Your task to perform on an android device: empty trash in google photos Image 0: 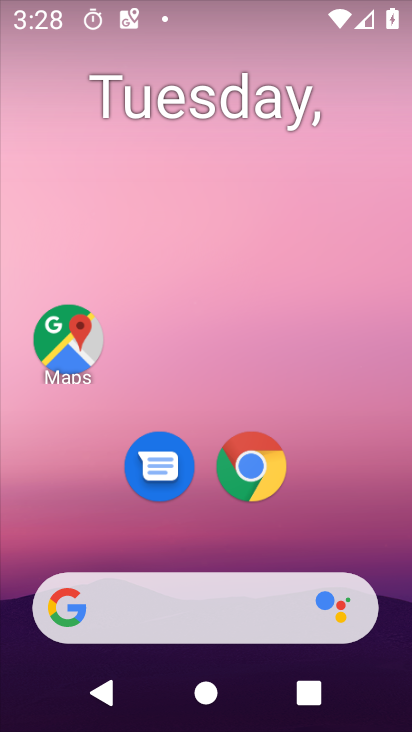
Step 0: drag from (381, 540) to (382, 220)
Your task to perform on an android device: empty trash in google photos Image 1: 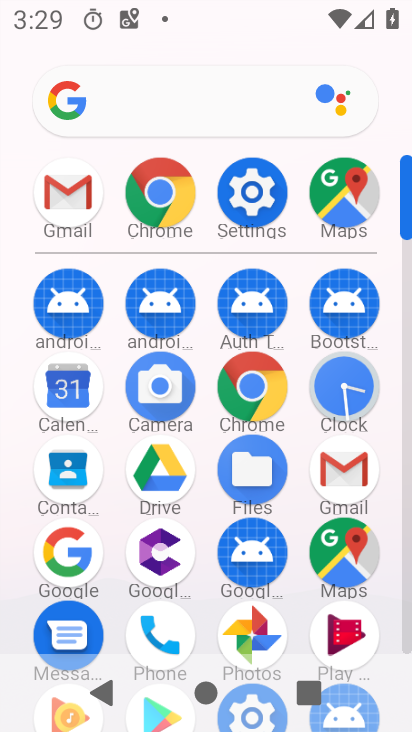
Step 1: click (266, 628)
Your task to perform on an android device: empty trash in google photos Image 2: 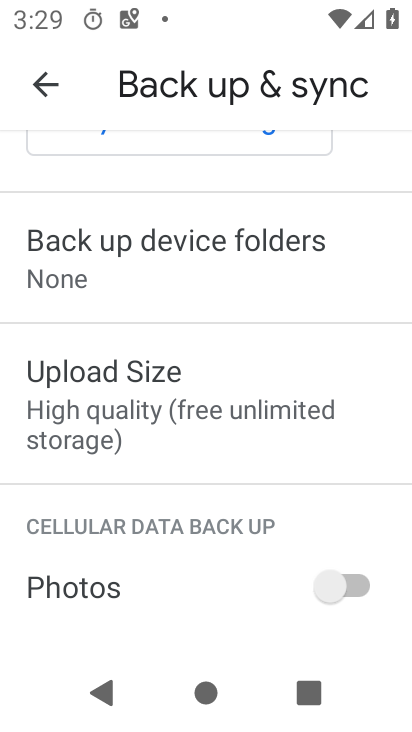
Step 2: press back button
Your task to perform on an android device: empty trash in google photos Image 3: 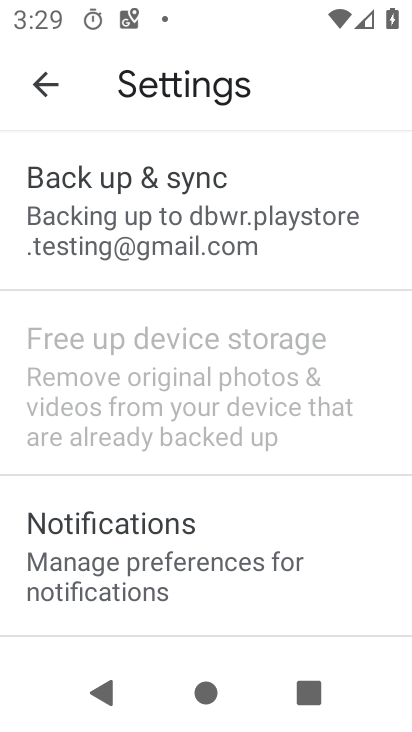
Step 3: press back button
Your task to perform on an android device: empty trash in google photos Image 4: 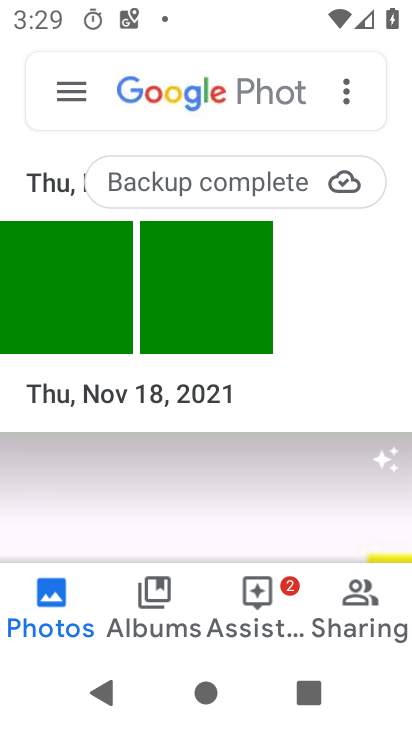
Step 4: click (59, 86)
Your task to perform on an android device: empty trash in google photos Image 5: 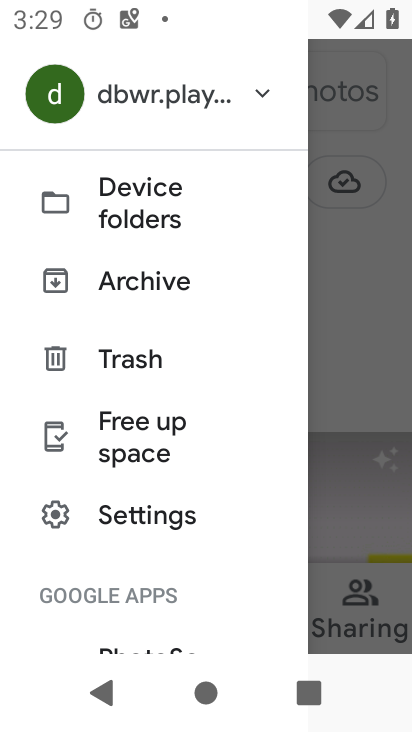
Step 5: click (174, 363)
Your task to perform on an android device: empty trash in google photos Image 6: 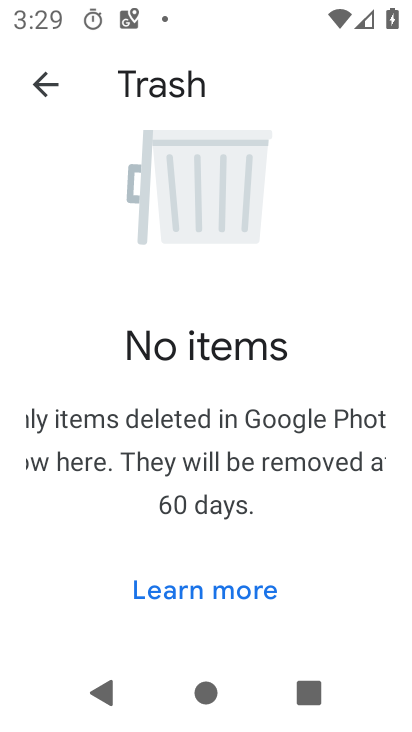
Step 6: task complete